Your task to perform on an android device: turn off picture-in-picture Image 0: 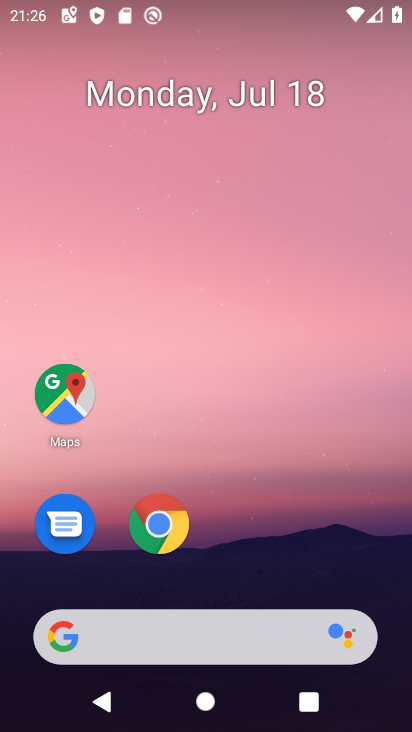
Step 0: click (160, 525)
Your task to perform on an android device: turn off picture-in-picture Image 1: 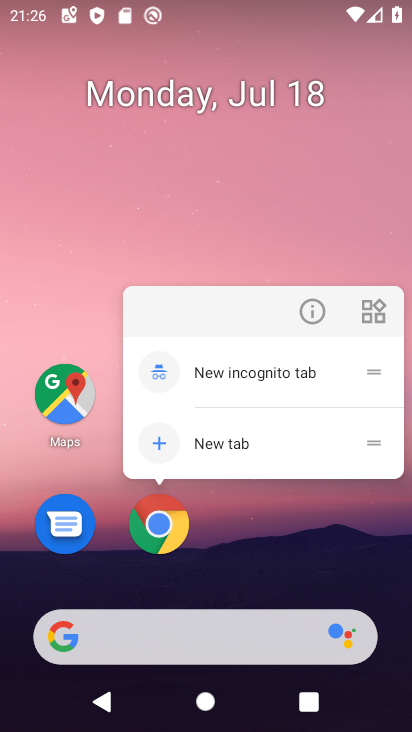
Step 1: click (320, 313)
Your task to perform on an android device: turn off picture-in-picture Image 2: 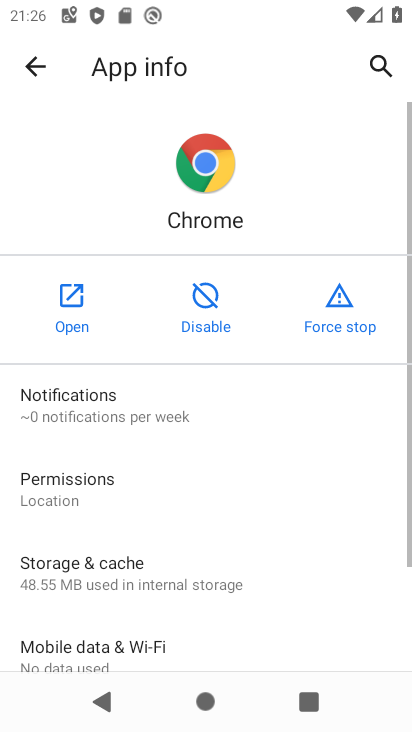
Step 2: drag from (213, 538) to (317, 3)
Your task to perform on an android device: turn off picture-in-picture Image 3: 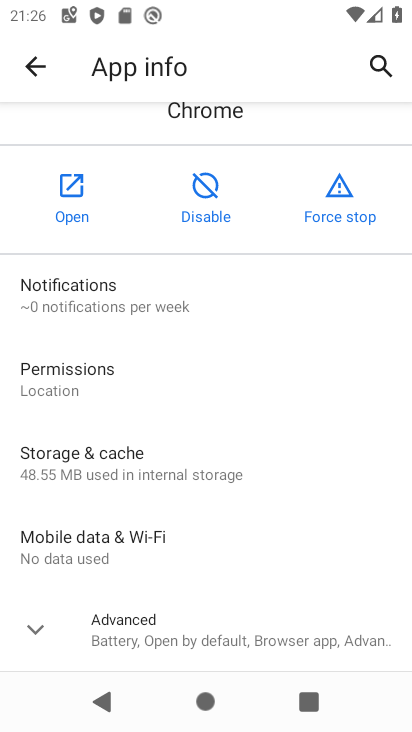
Step 3: click (32, 629)
Your task to perform on an android device: turn off picture-in-picture Image 4: 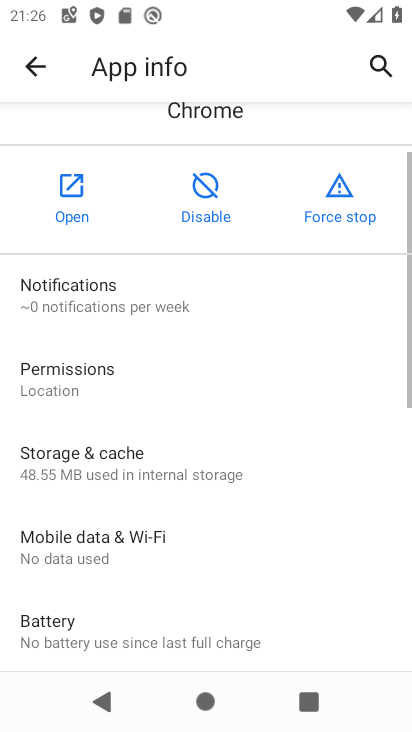
Step 4: drag from (229, 540) to (292, 11)
Your task to perform on an android device: turn off picture-in-picture Image 5: 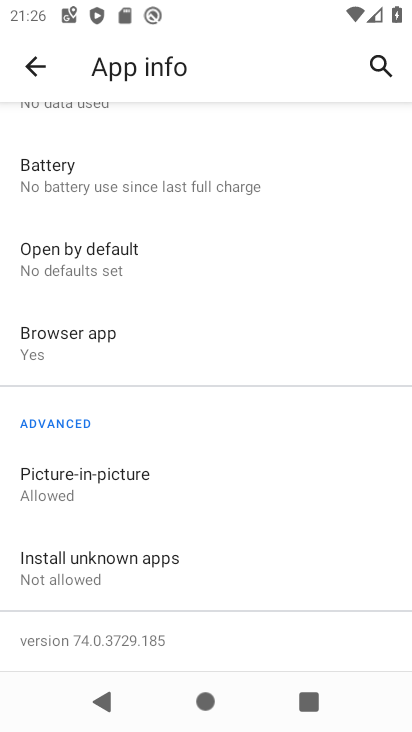
Step 5: click (107, 473)
Your task to perform on an android device: turn off picture-in-picture Image 6: 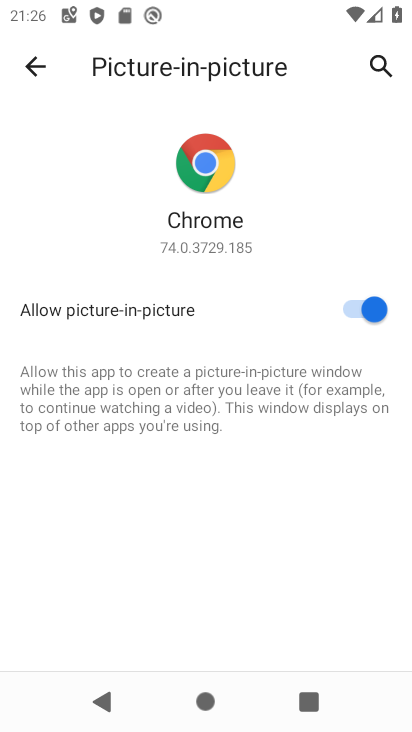
Step 6: click (371, 315)
Your task to perform on an android device: turn off picture-in-picture Image 7: 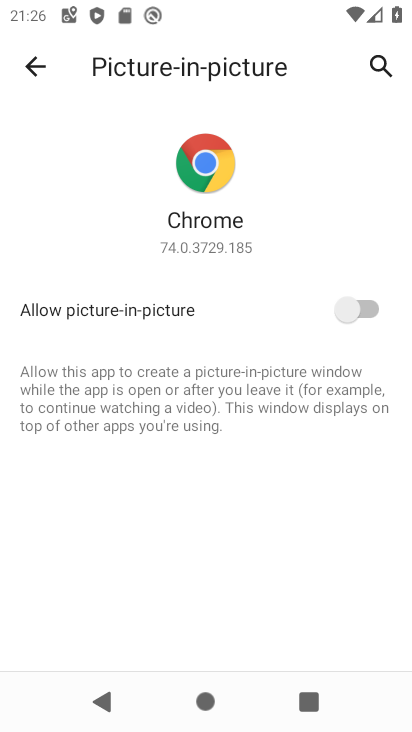
Step 7: task complete